Your task to perform on an android device: turn off notifications settings in the gmail app Image 0: 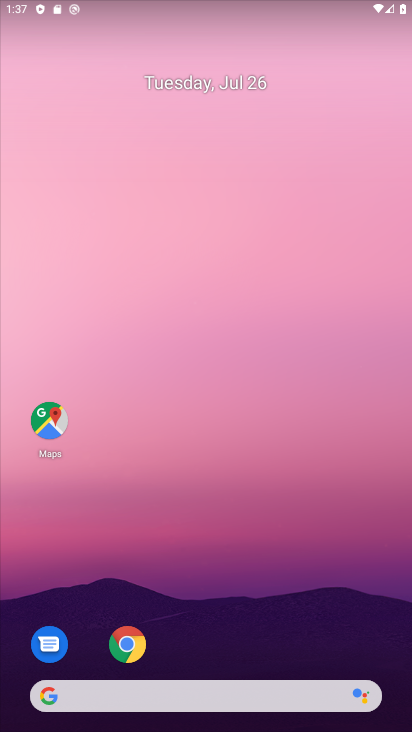
Step 0: drag from (263, 651) to (228, 6)
Your task to perform on an android device: turn off notifications settings in the gmail app Image 1: 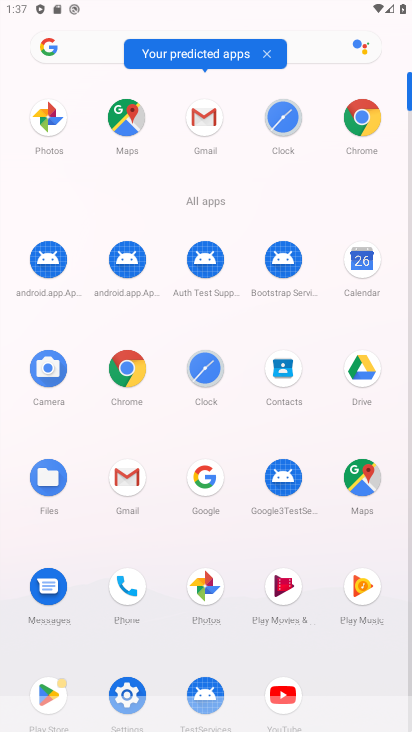
Step 1: click (207, 114)
Your task to perform on an android device: turn off notifications settings in the gmail app Image 2: 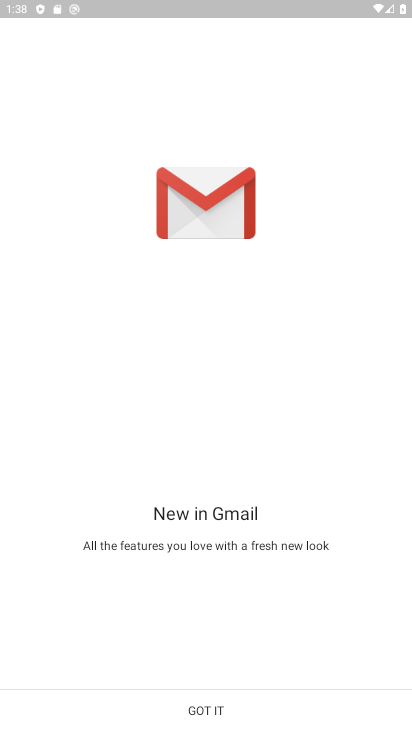
Step 2: click (226, 719)
Your task to perform on an android device: turn off notifications settings in the gmail app Image 3: 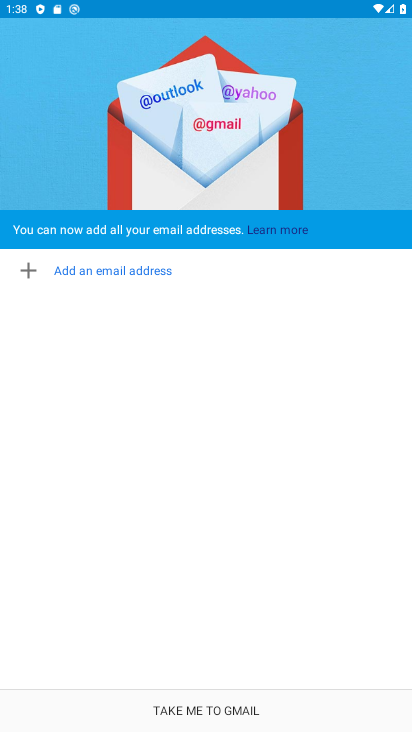
Step 3: task complete